Your task to perform on an android device: Open calendar and show me the first week of next month Image 0: 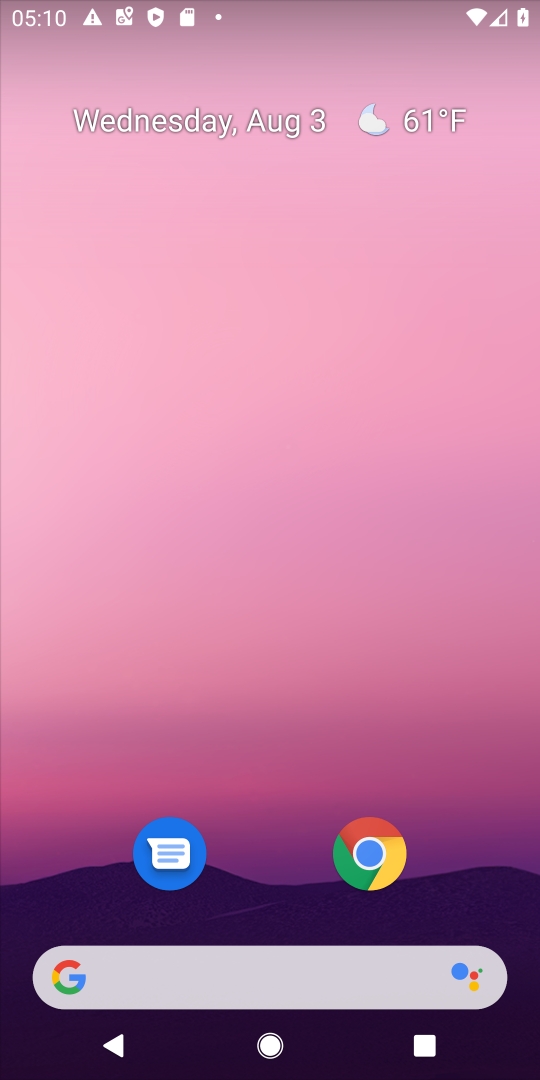
Step 0: drag from (286, 765) to (280, 111)
Your task to perform on an android device: Open calendar and show me the first week of next month Image 1: 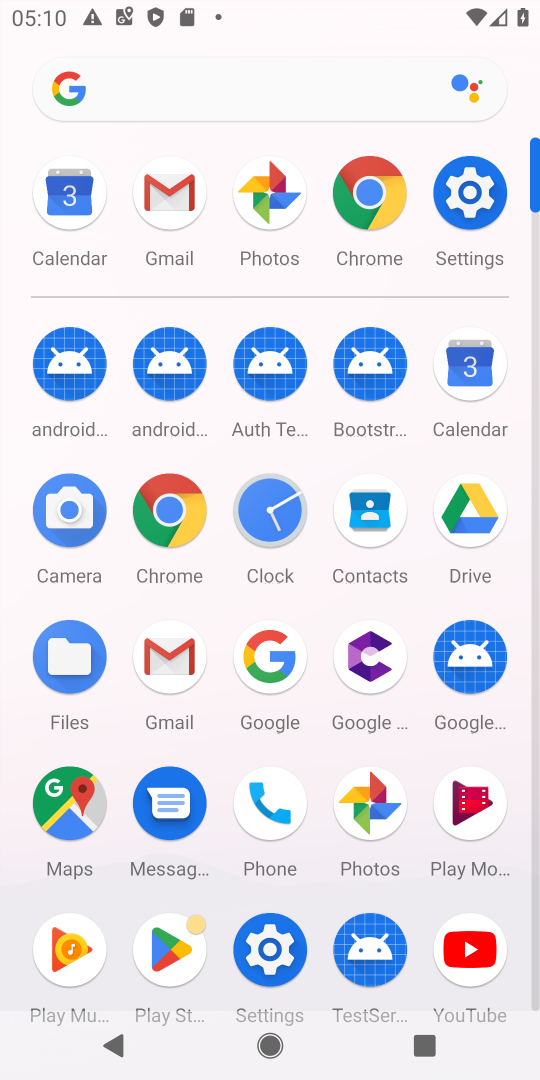
Step 1: click (473, 361)
Your task to perform on an android device: Open calendar and show me the first week of next month Image 2: 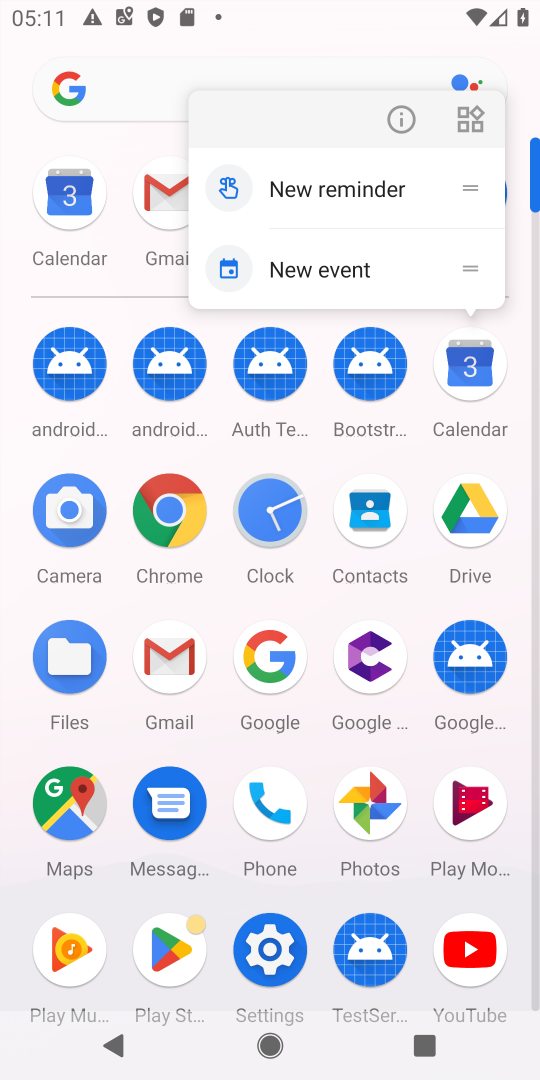
Step 2: click (471, 367)
Your task to perform on an android device: Open calendar and show me the first week of next month Image 3: 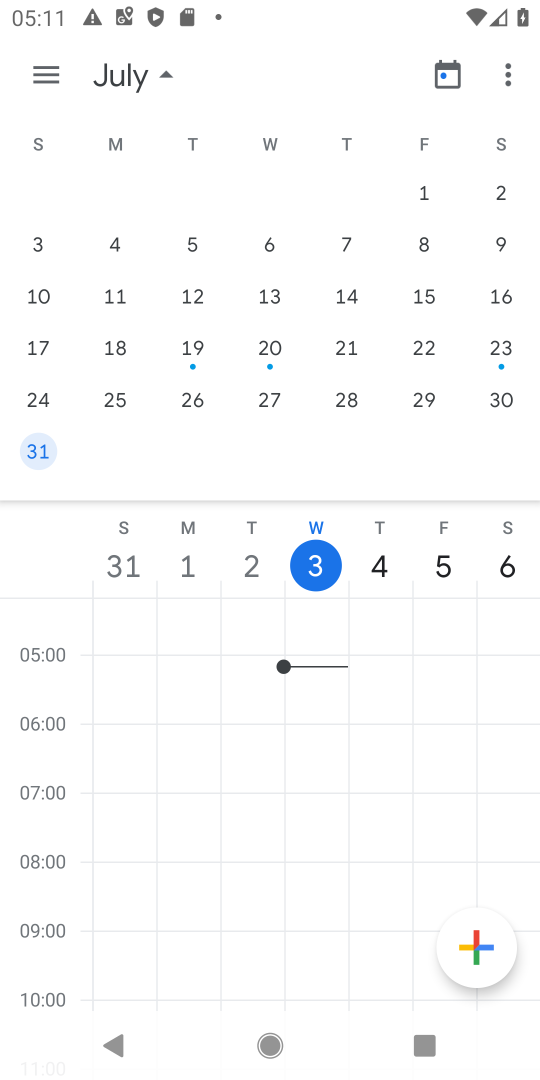
Step 3: drag from (443, 376) to (367, 354)
Your task to perform on an android device: Open calendar and show me the first week of next month Image 4: 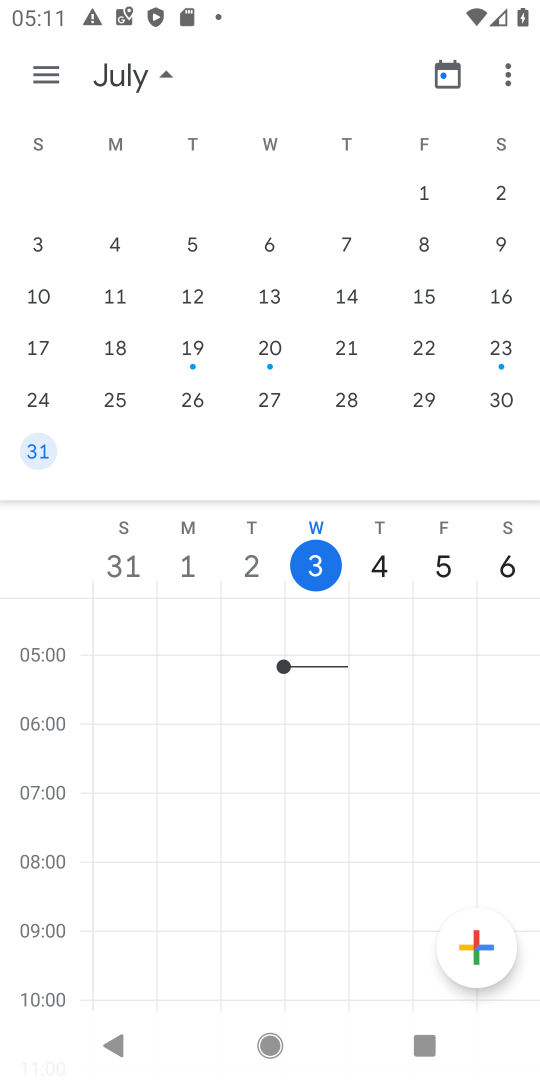
Step 4: drag from (444, 396) to (6, 297)
Your task to perform on an android device: Open calendar and show me the first week of next month Image 5: 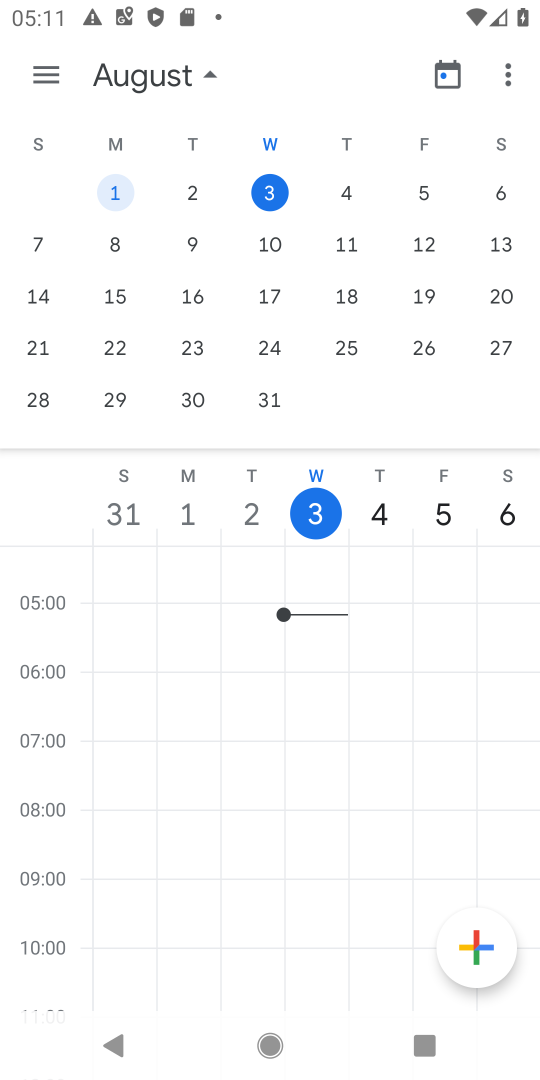
Step 5: click (114, 191)
Your task to perform on an android device: Open calendar and show me the first week of next month Image 6: 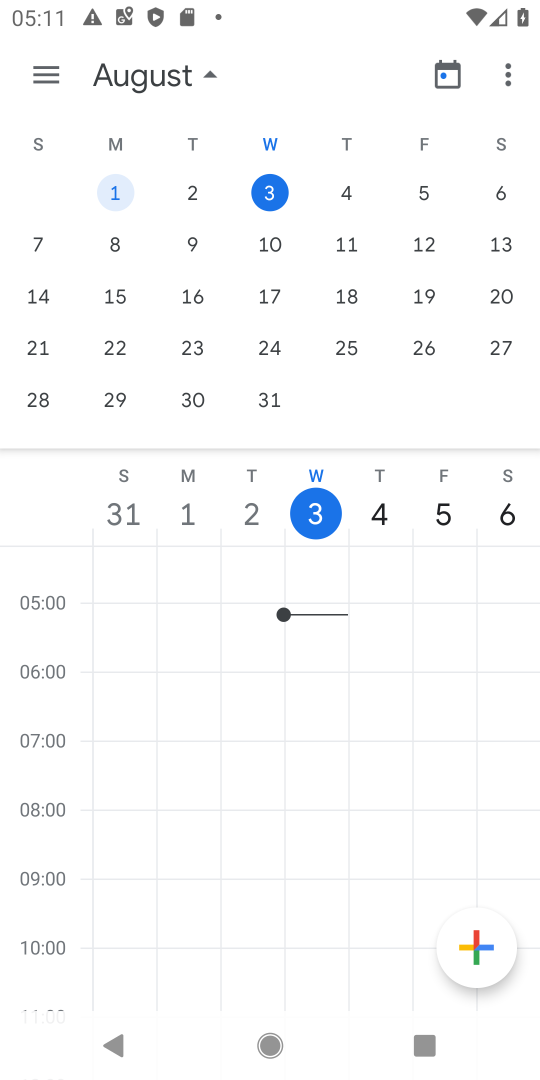
Step 6: click (41, 74)
Your task to perform on an android device: Open calendar and show me the first week of next month Image 7: 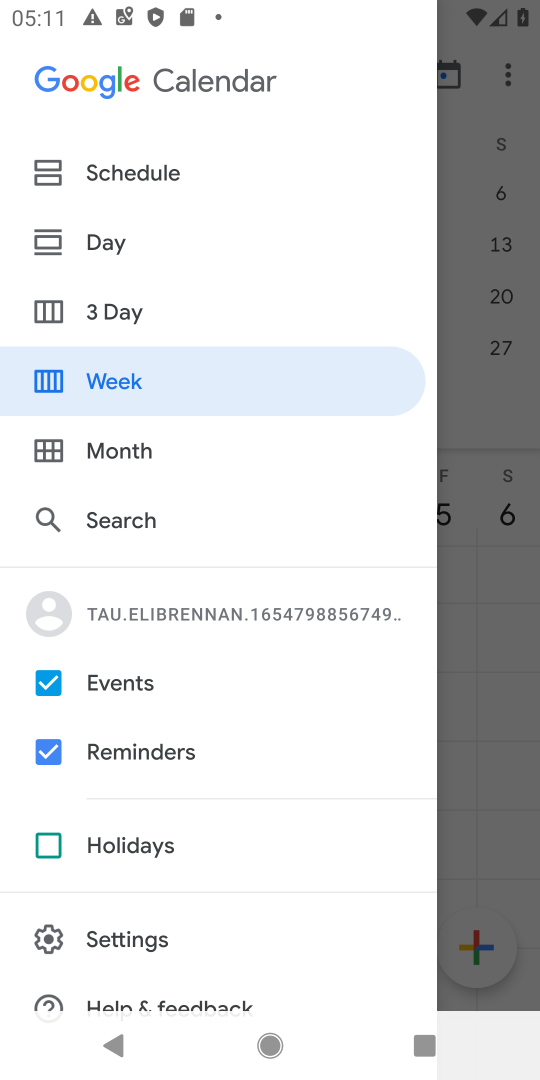
Step 7: click (111, 380)
Your task to perform on an android device: Open calendar and show me the first week of next month Image 8: 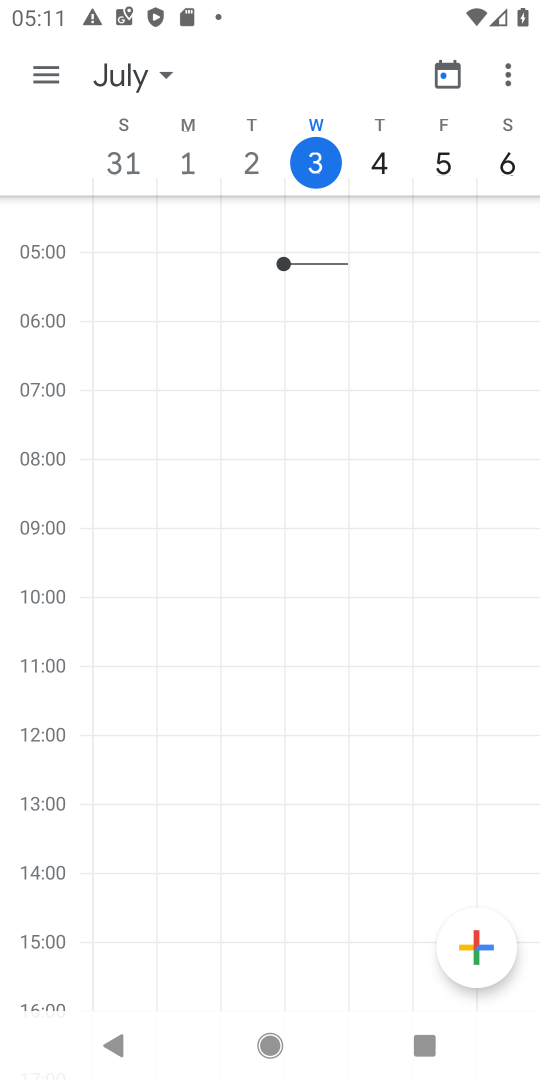
Step 8: task complete